Your task to perform on an android device: Go to sound settings Image 0: 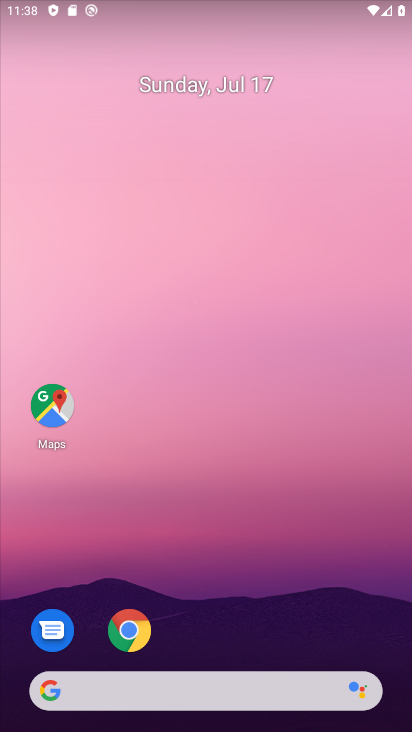
Step 0: drag from (225, 694) to (200, 383)
Your task to perform on an android device: Go to sound settings Image 1: 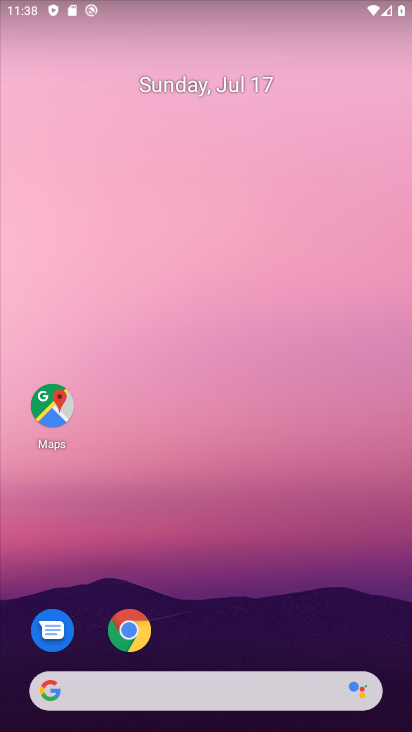
Step 1: drag from (260, 722) to (197, 132)
Your task to perform on an android device: Go to sound settings Image 2: 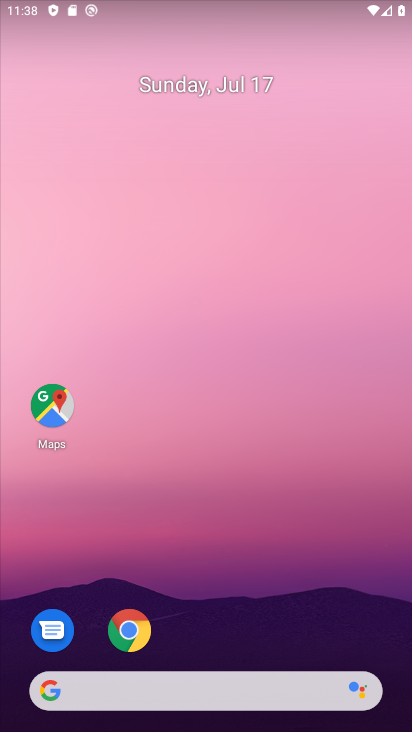
Step 2: drag from (144, 604) to (160, 257)
Your task to perform on an android device: Go to sound settings Image 3: 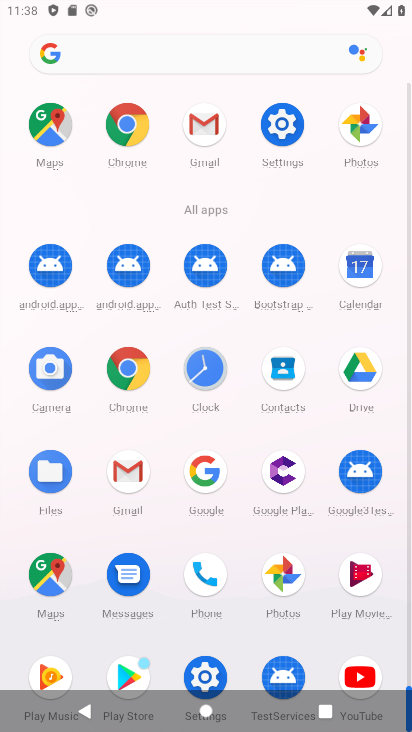
Step 3: drag from (211, 622) to (186, 135)
Your task to perform on an android device: Go to sound settings Image 4: 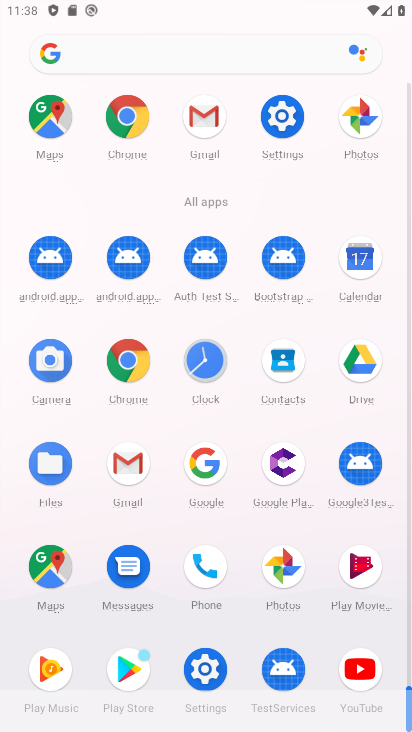
Step 4: click (277, 122)
Your task to perform on an android device: Go to sound settings Image 5: 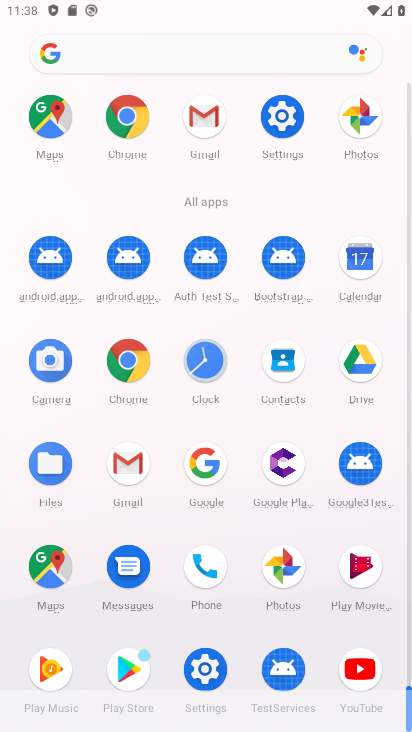
Step 5: click (278, 123)
Your task to perform on an android device: Go to sound settings Image 6: 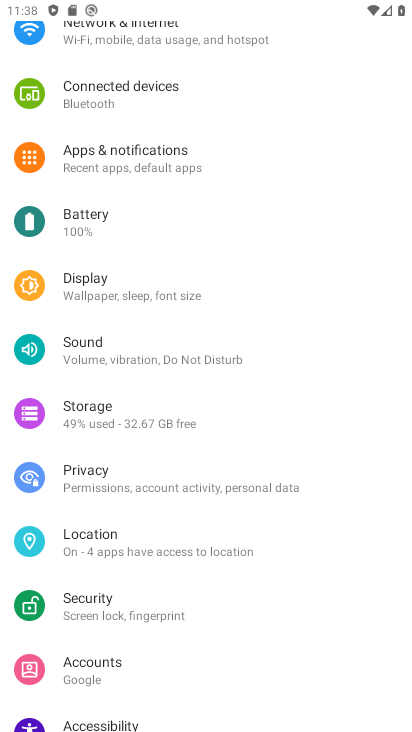
Step 6: click (98, 365)
Your task to perform on an android device: Go to sound settings Image 7: 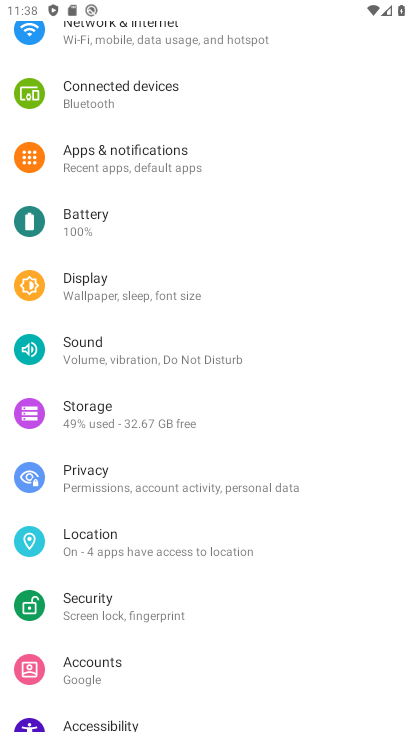
Step 7: click (107, 356)
Your task to perform on an android device: Go to sound settings Image 8: 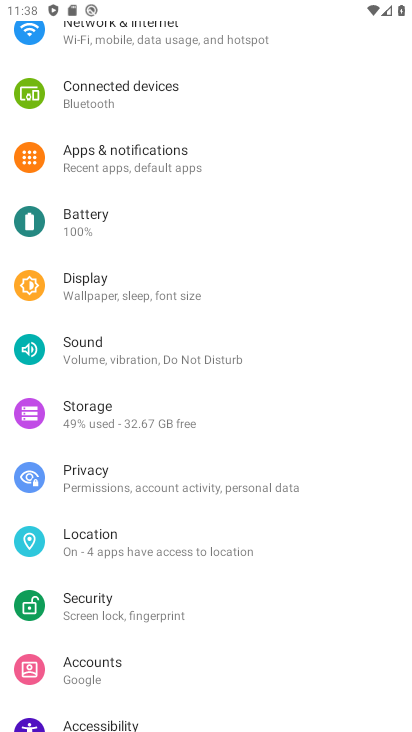
Step 8: click (107, 356)
Your task to perform on an android device: Go to sound settings Image 9: 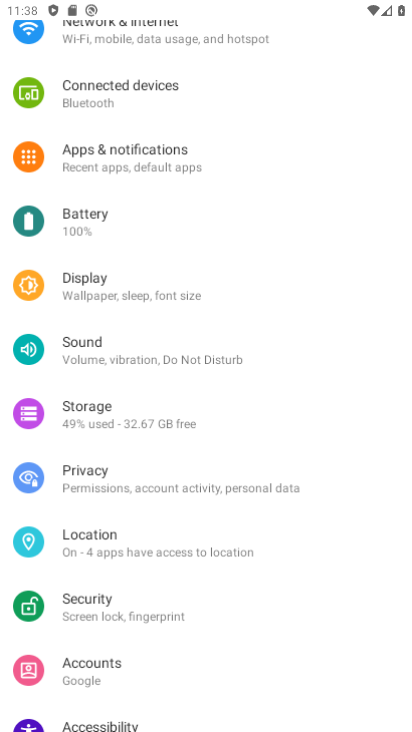
Step 9: click (107, 356)
Your task to perform on an android device: Go to sound settings Image 10: 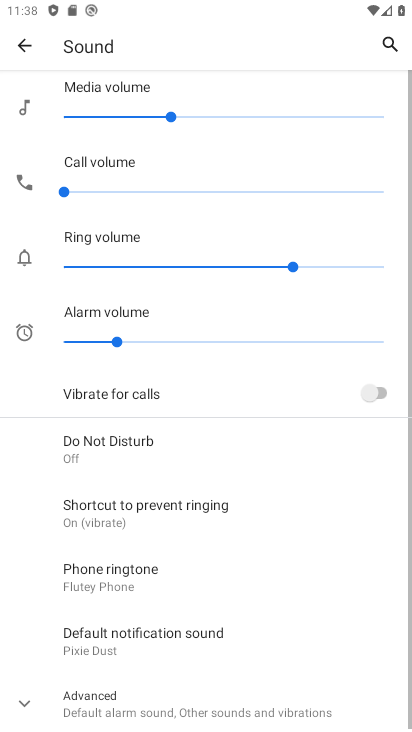
Step 10: task complete